Your task to perform on an android device: visit the assistant section in the google photos Image 0: 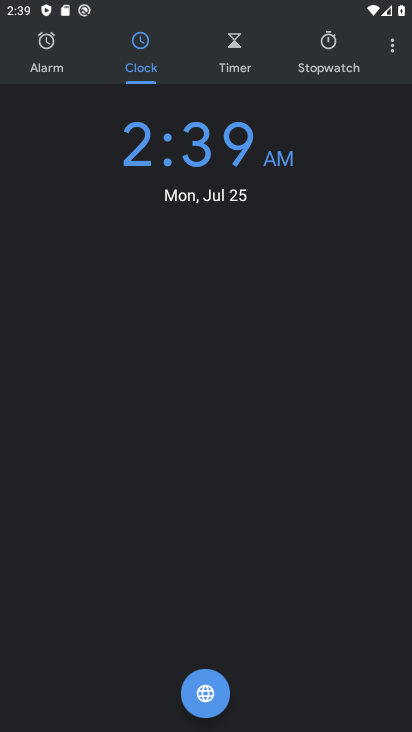
Step 0: press home button
Your task to perform on an android device: visit the assistant section in the google photos Image 1: 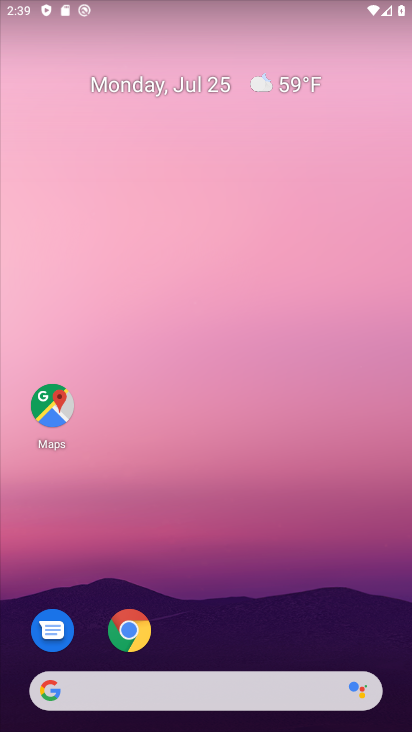
Step 1: drag from (295, 614) to (199, 29)
Your task to perform on an android device: visit the assistant section in the google photos Image 2: 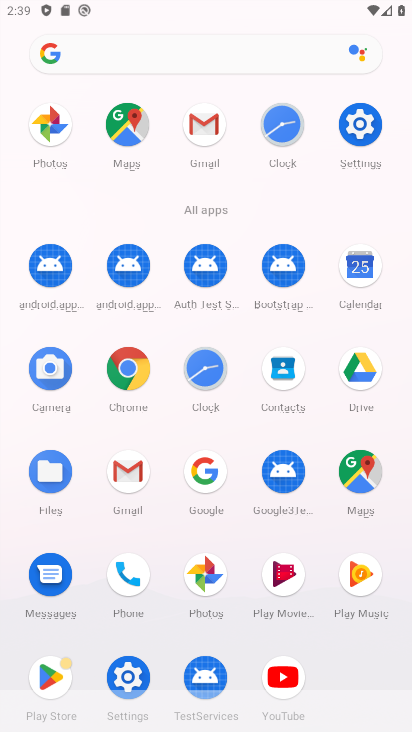
Step 2: click (200, 579)
Your task to perform on an android device: visit the assistant section in the google photos Image 3: 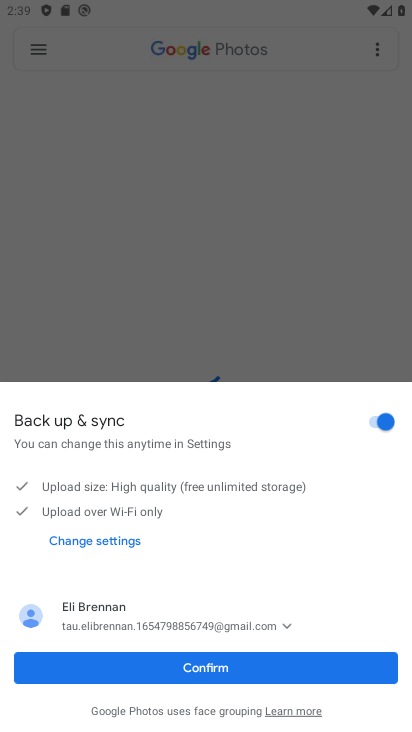
Step 3: click (219, 672)
Your task to perform on an android device: visit the assistant section in the google photos Image 4: 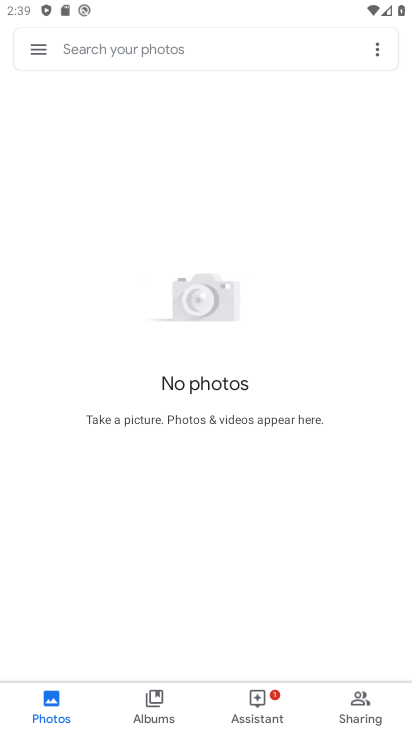
Step 4: click (275, 698)
Your task to perform on an android device: visit the assistant section in the google photos Image 5: 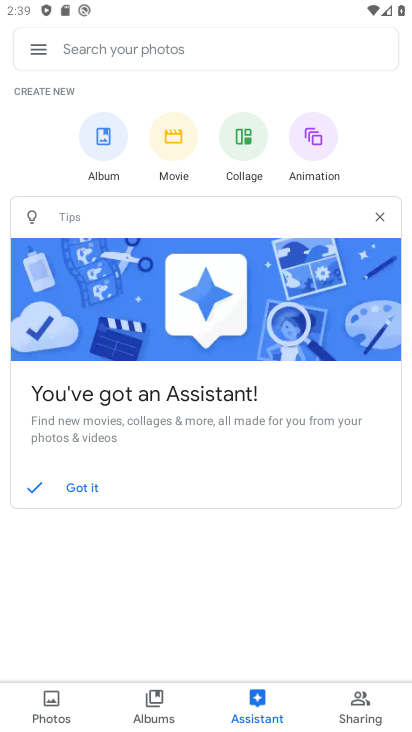
Step 5: task complete